Your task to perform on an android device: Open privacy settings Image 0: 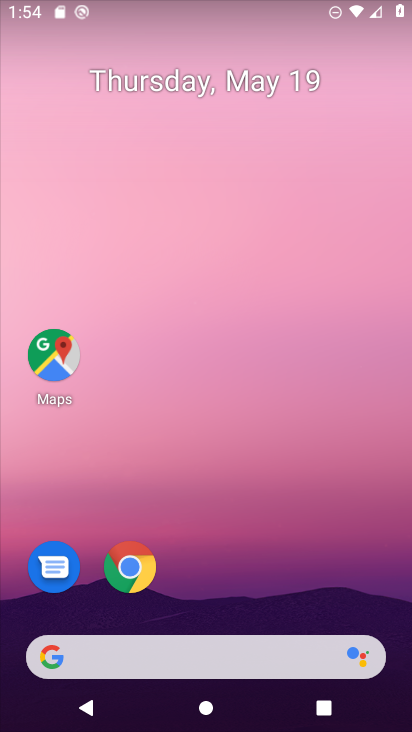
Step 0: drag from (251, 568) to (186, 30)
Your task to perform on an android device: Open privacy settings Image 1: 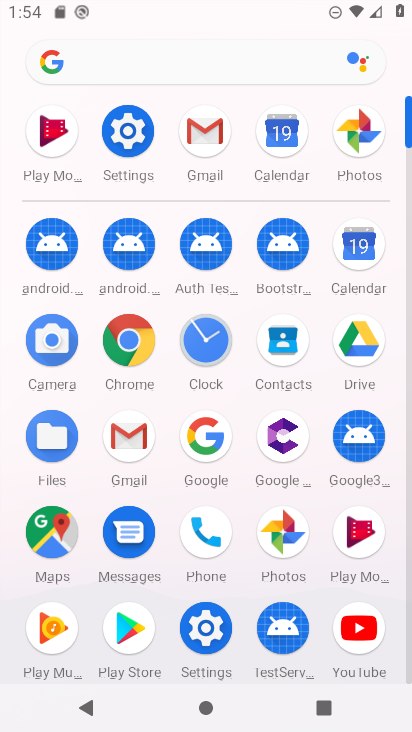
Step 1: click (137, 135)
Your task to perform on an android device: Open privacy settings Image 2: 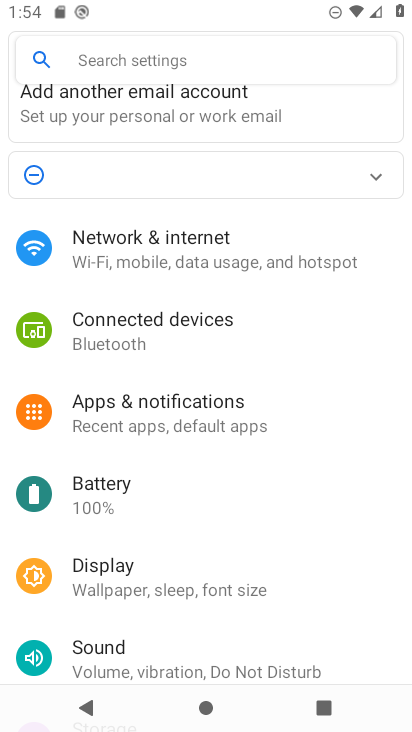
Step 2: drag from (194, 525) to (205, 163)
Your task to perform on an android device: Open privacy settings Image 3: 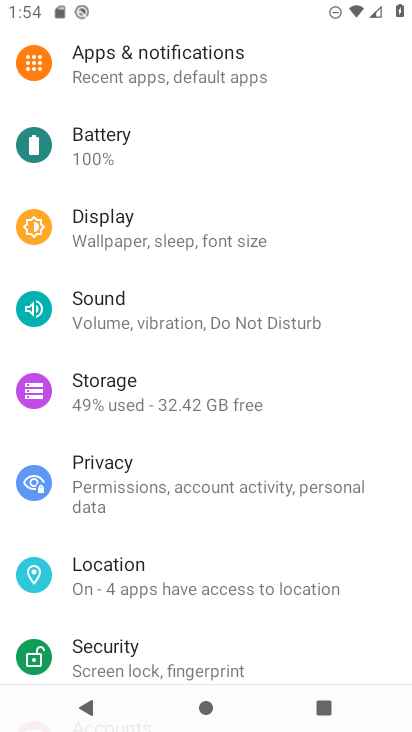
Step 3: click (218, 477)
Your task to perform on an android device: Open privacy settings Image 4: 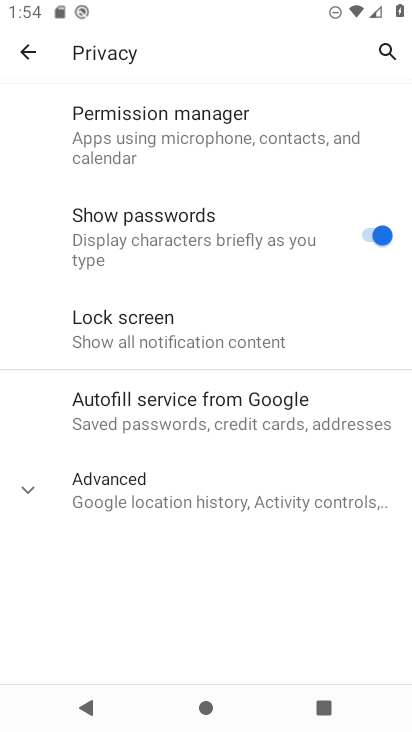
Step 4: task complete